Your task to perform on an android device: open wifi settings Image 0: 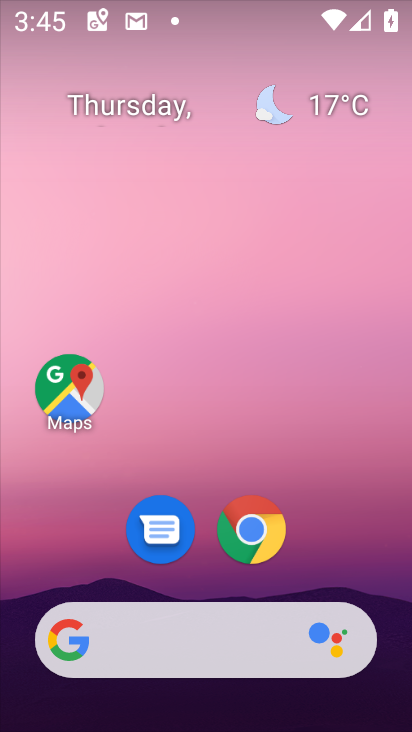
Step 0: drag from (177, 523) to (177, 93)
Your task to perform on an android device: open wifi settings Image 1: 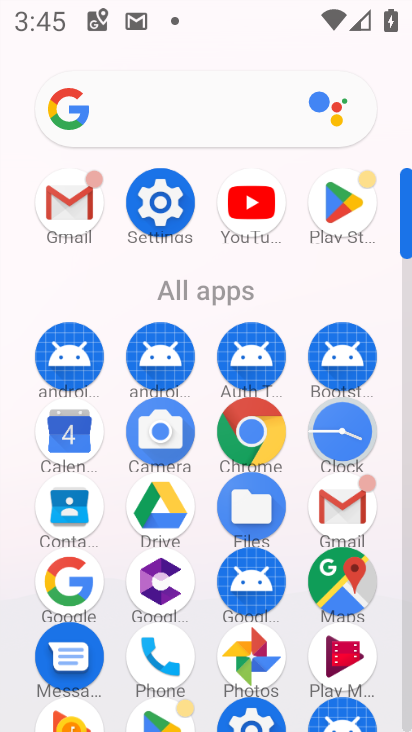
Step 1: click (162, 201)
Your task to perform on an android device: open wifi settings Image 2: 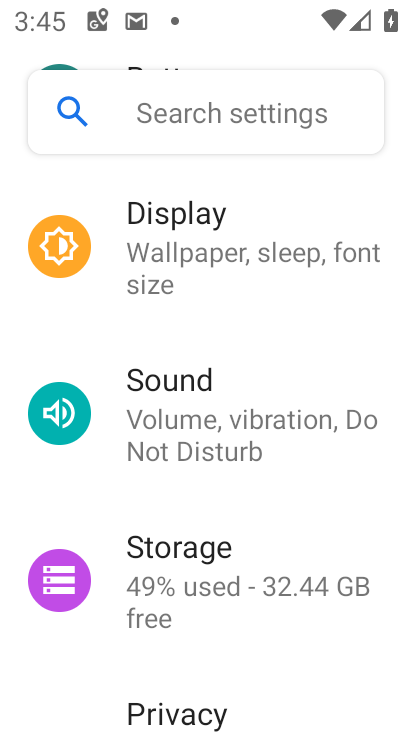
Step 2: drag from (153, 187) to (213, 477)
Your task to perform on an android device: open wifi settings Image 3: 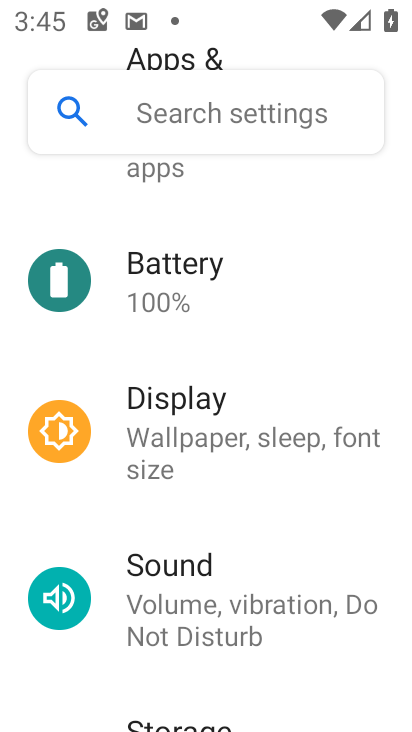
Step 3: drag from (178, 160) to (173, 577)
Your task to perform on an android device: open wifi settings Image 4: 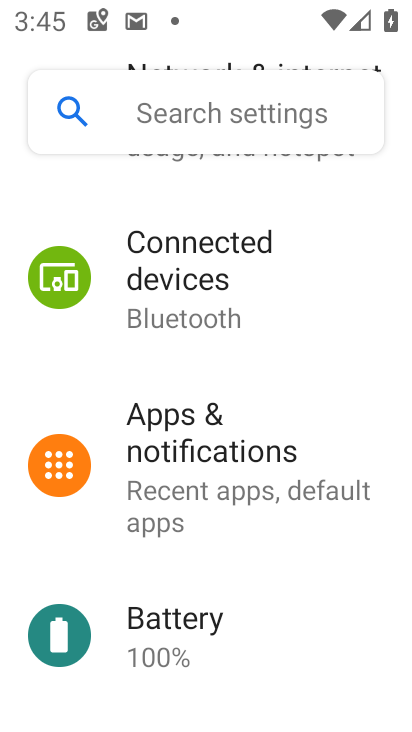
Step 4: drag from (160, 164) to (169, 555)
Your task to perform on an android device: open wifi settings Image 5: 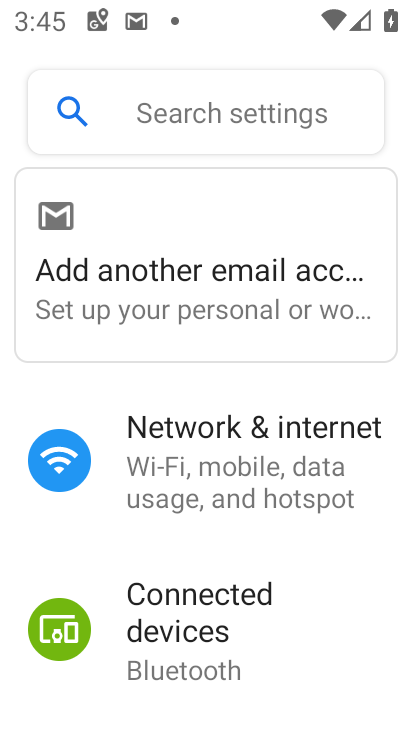
Step 5: click (143, 477)
Your task to perform on an android device: open wifi settings Image 6: 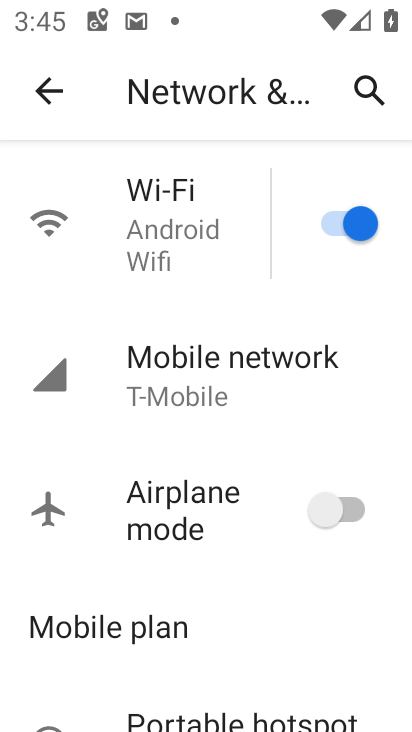
Step 6: drag from (183, 320) to (183, 555)
Your task to perform on an android device: open wifi settings Image 7: 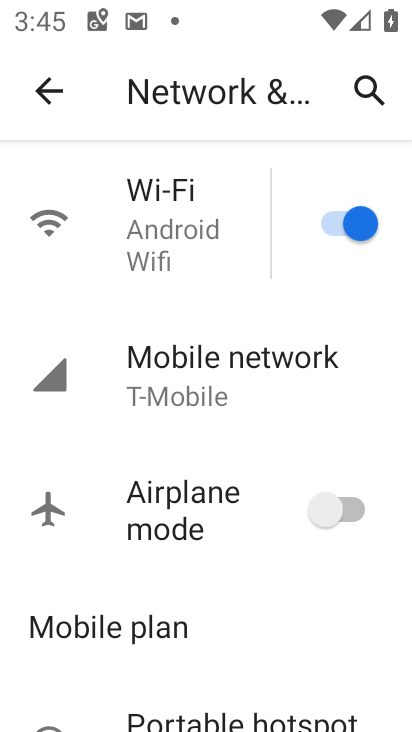
Step 7: click (164, 229)
Your task to perform on an android device: open wifi settings Image 8: 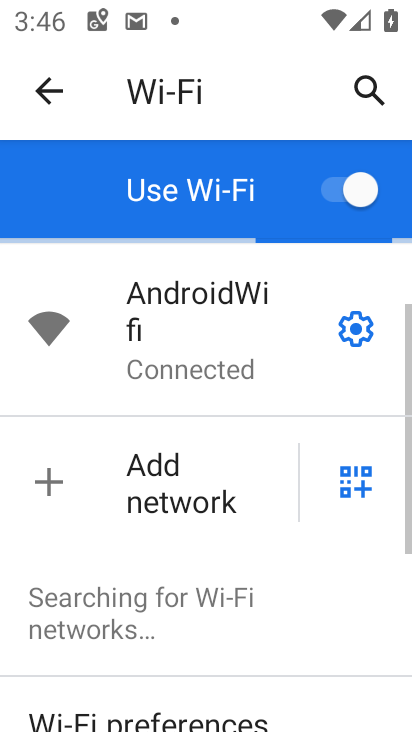
Step 8: click (349, 328)
Your task to perform on an android device: open wifi settings Image 9: 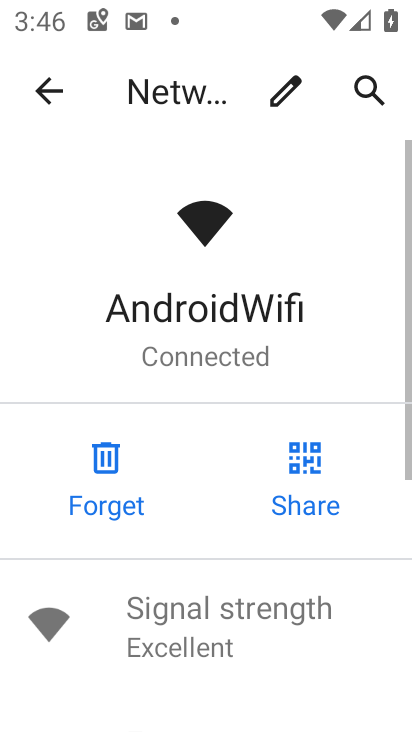
Step 9: task complete